Your task to perform on an android device: What's the weather? Image 0: 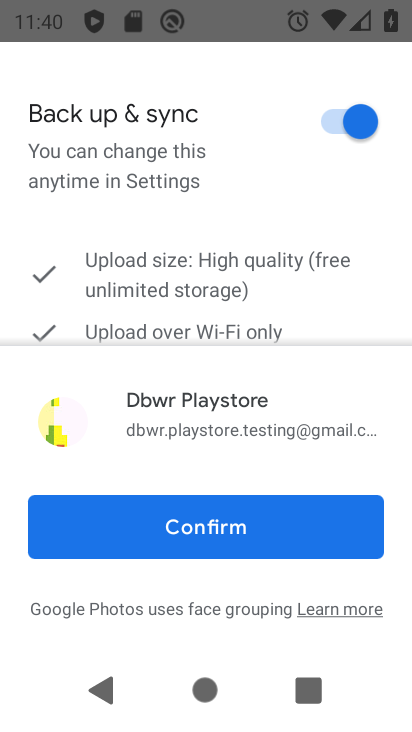
Step 0: press home button
Your task to perform on an android device: What's the weather? Image 1: 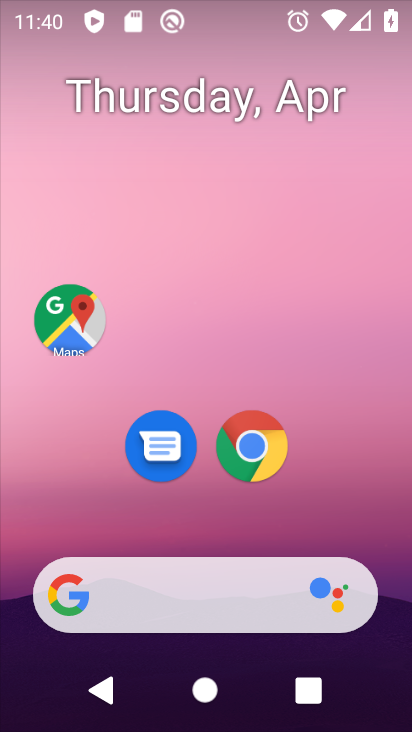
Step 1: click (277, 448)
Your task to perform on an android device: What's the weather? Image 2: 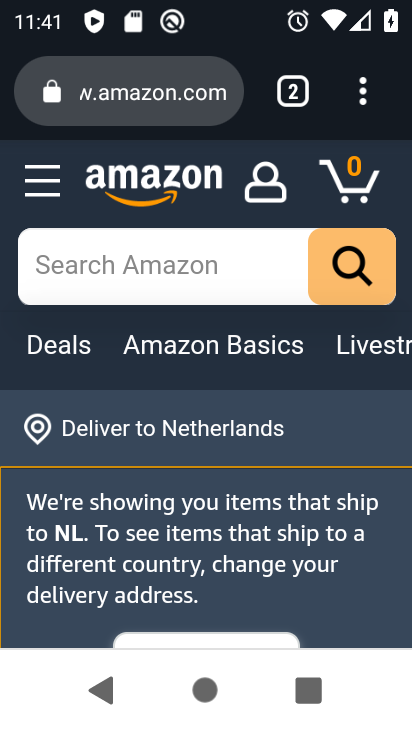
Step 2: click (166, 85)
Your task to perform on an android device: What's the weather? Image 3: 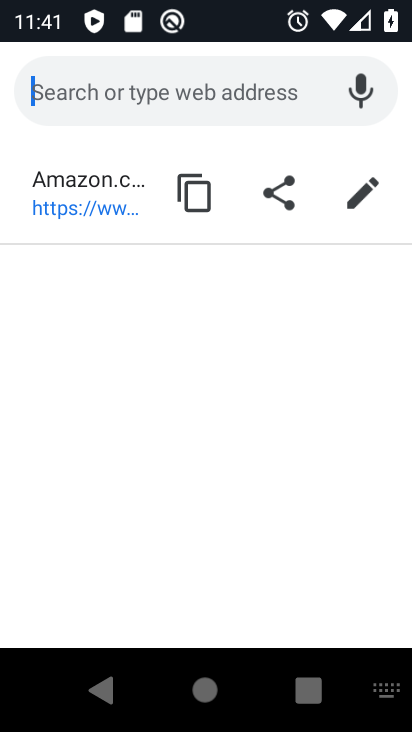
Step 3: type "What's the weather?"
Your task to perform on an android device: What's the weather? Image 4: 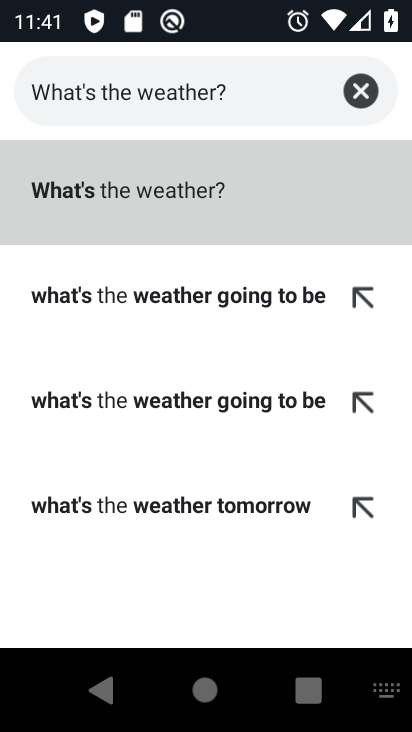
Step 4: click (189, 186)
Your task to perform on an android device: What's the weather? Image 5: 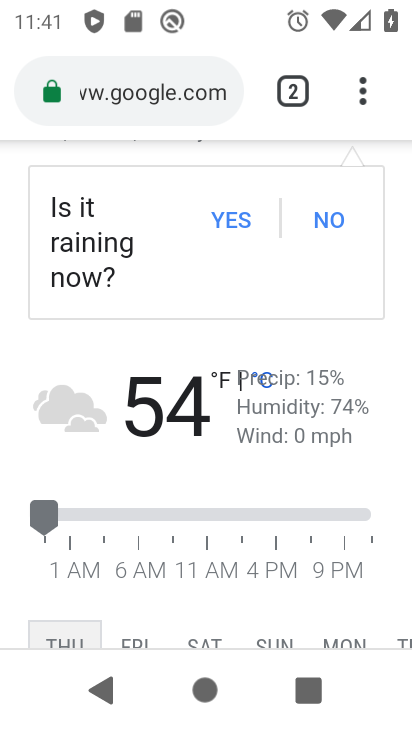
Step 5: task complete